Your task to perform on an android device: add a contact Image 0: 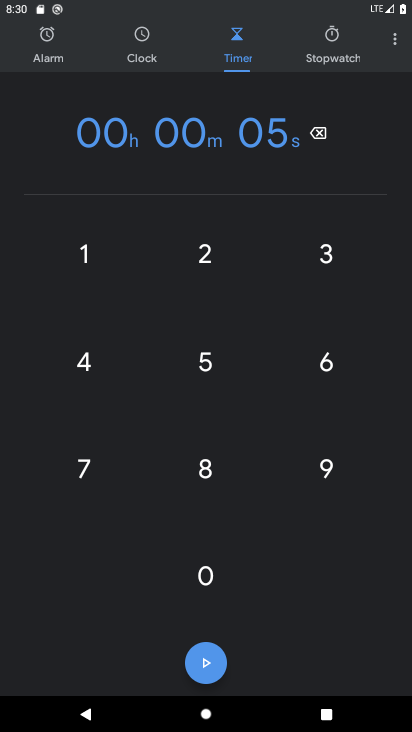
Step 0: press home button
Your task to perform on an android device: add a contact Image 1: 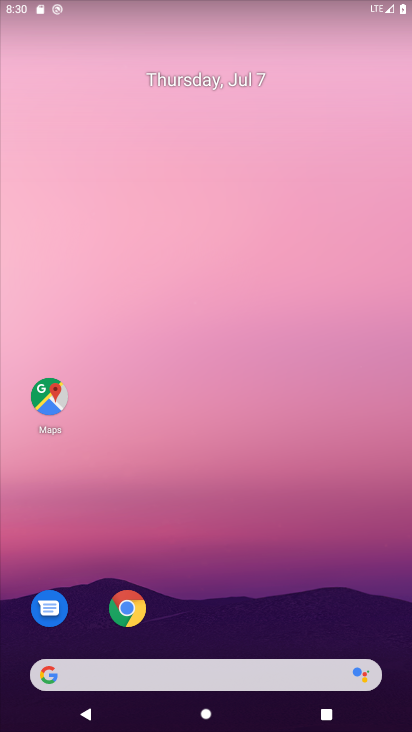
Step 1: drag from (347, 618) to (352, 114)
Your task to perform on an android device: add a contact Image 2: 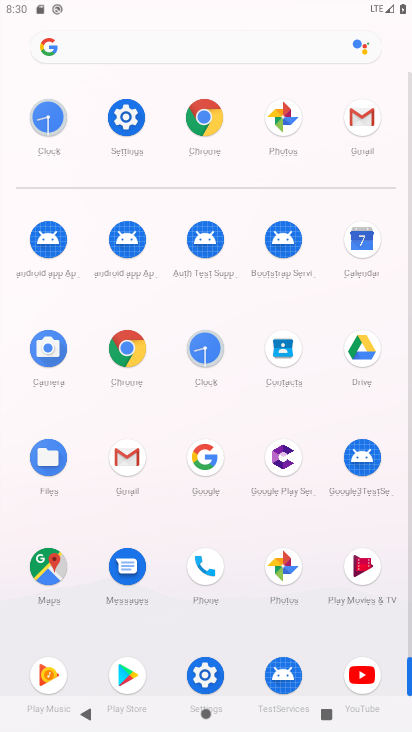
Step 2: click (293, 353)
Your task to perform on an android device: add a contact Image 3: 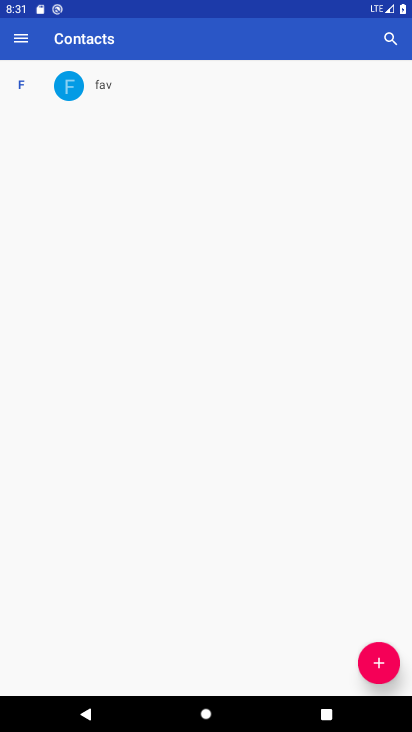
Step 3: click (378, 661)
Your task to perform on an android device: add a contact Image 4: 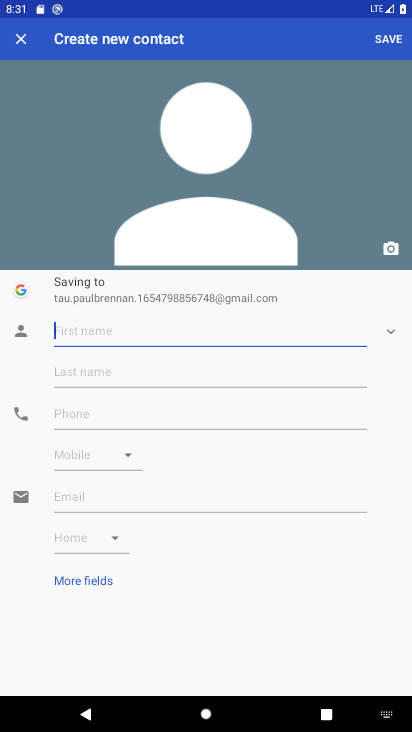
Step 4: type "luv"
Your task to perform on an android device: add a contact Image 5: 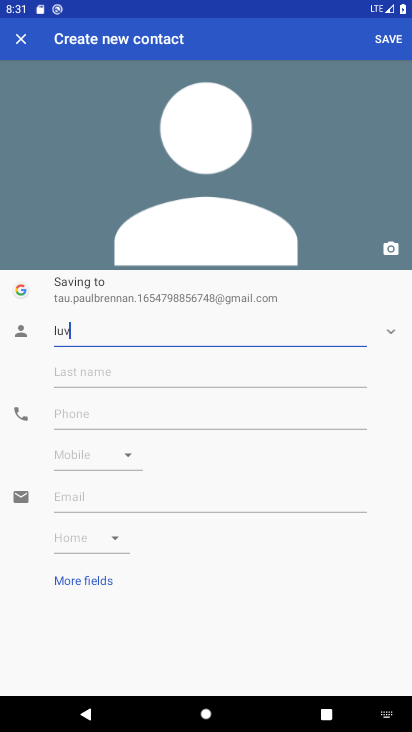
Step 5: click (289, 411)
Your task to perform on an android device: add a contact Image 6: 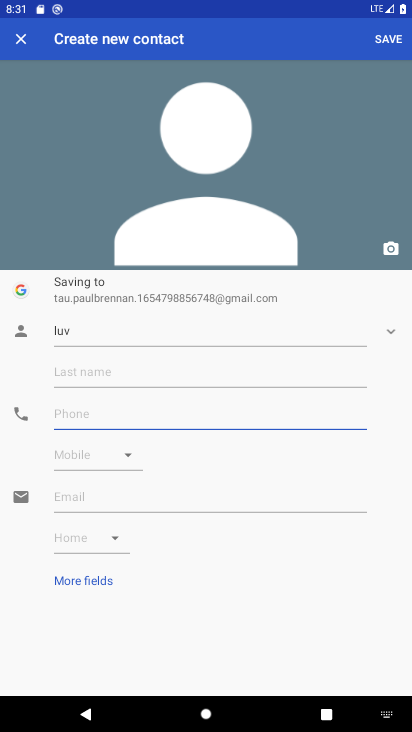
Step 6: type "23344556677889"
Your task to perform on an android device: add a contact Image 7: 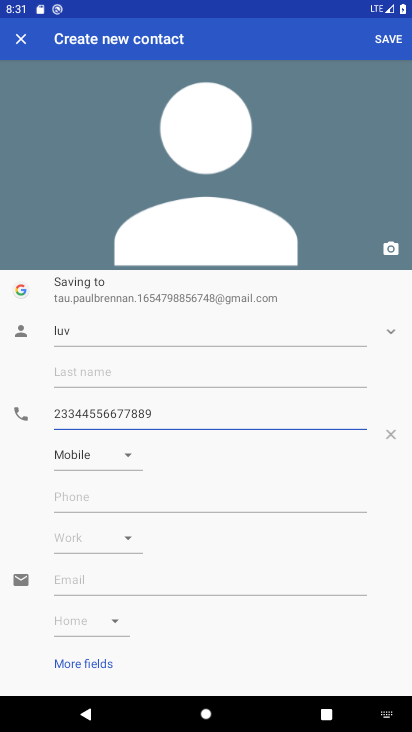
Step 7: click (393, 39)
Your task to perform on an android device: add a contact Image 8: 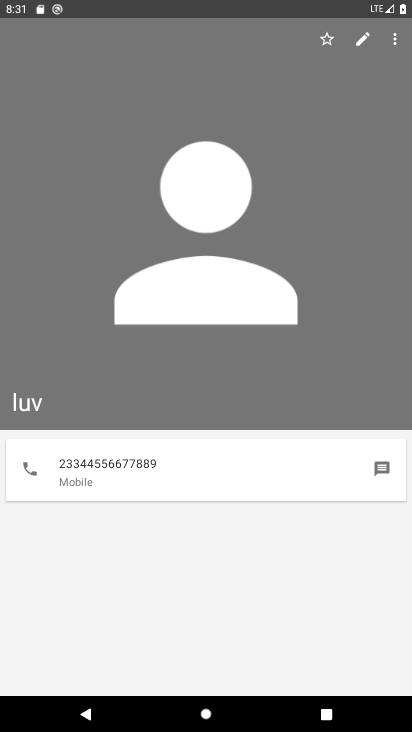
Step 8: task complete